Your task to perform on an android device: manage bookmarks in the chrome app Image 0: 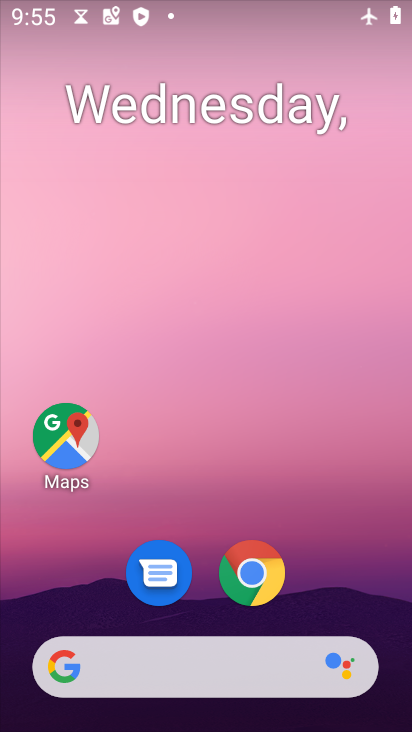
Step 0: click (252, 566)
Your task to perform on an android device: manage bookmarks in the chrome app Image 1: 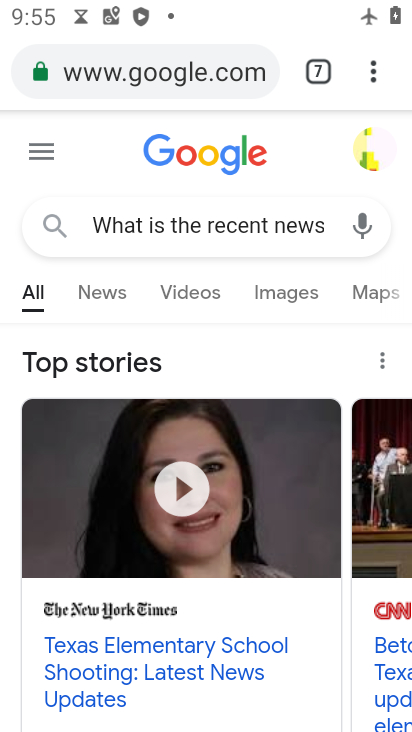
Step 1: click (373, 69)
Your task to perform on an android device: manage bookmarks in the chrome app Image 2: 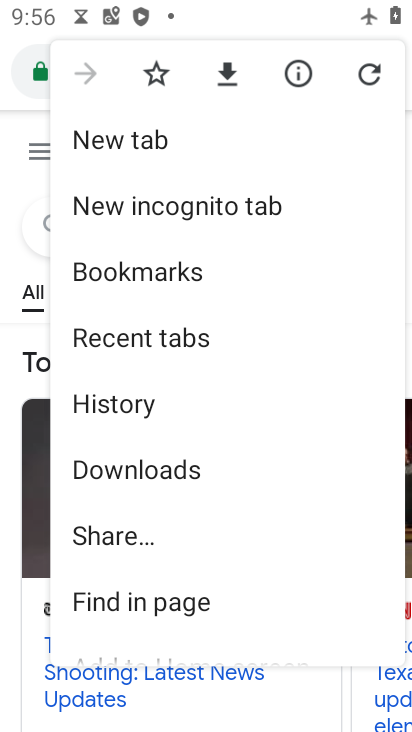
Step 2: click (141, 264)
Your task to perform on an android device: manage bookmarks in the chrome app Image 3: 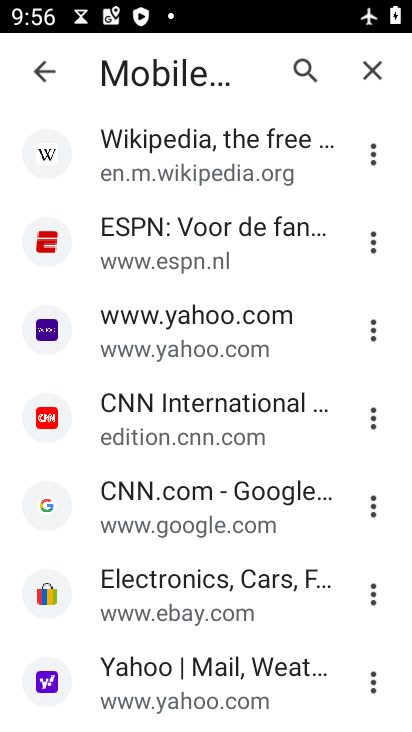
Step 3: click (166, 224)
Your task to perform on an android device: manage bookmarks in the chrome app Image 4: 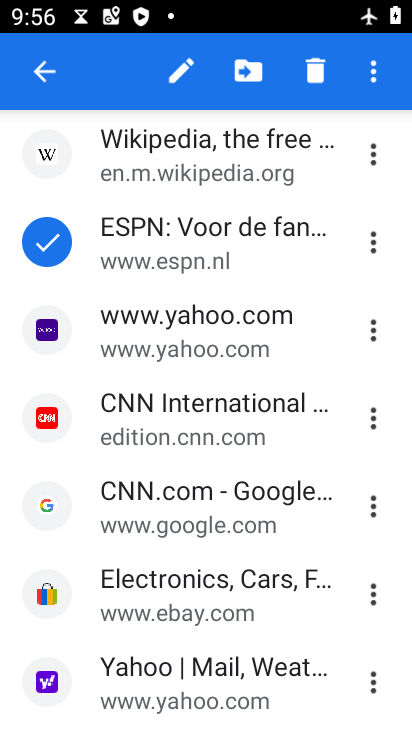
Step 4: click (253, 74)
Your task to perform on an android device: manage bookmarks in the chrome app Image 5: 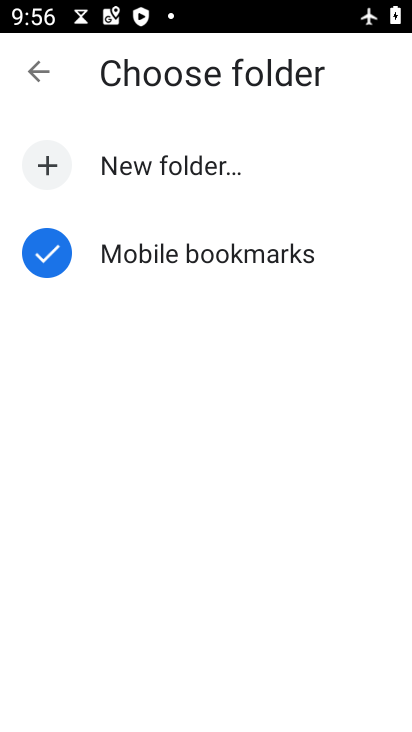
Step 5: click (173, 169)
Your task to perform on an android device: manage bookmarks in the chrome app Image 6: 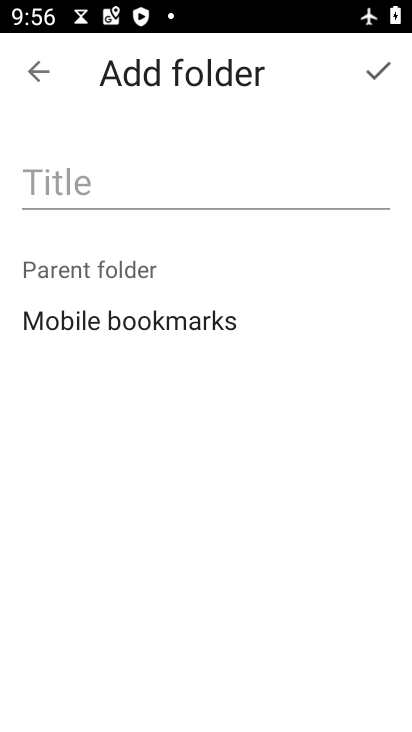
Step 6: click (183, 185)
Your task to perform on an android device: manage bookmarks in the chrome app Image 7: 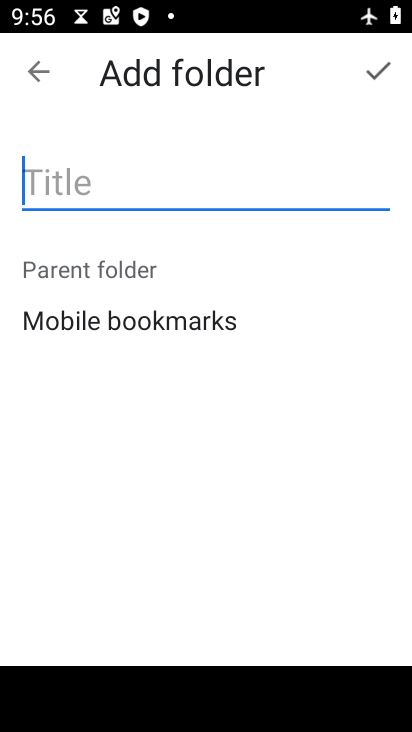
Step 7: type "ghjk"
Your task to perform on an android device: manage bookmarks in the chrome app Image 8: 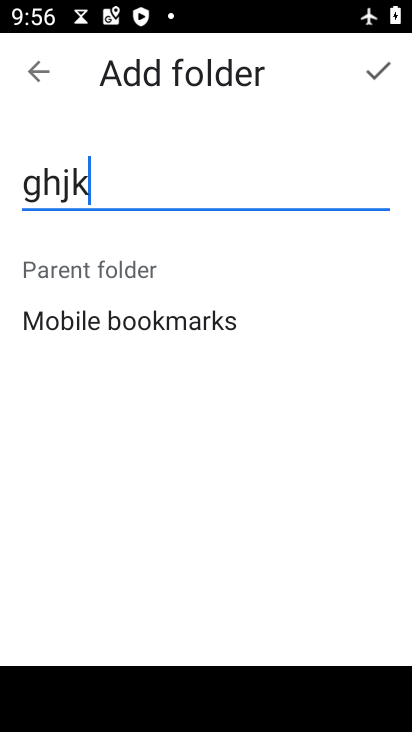
Step 8: click (373, 75)
Your task to perform on an android device: manage bookmarks in the chrome app Image 9: 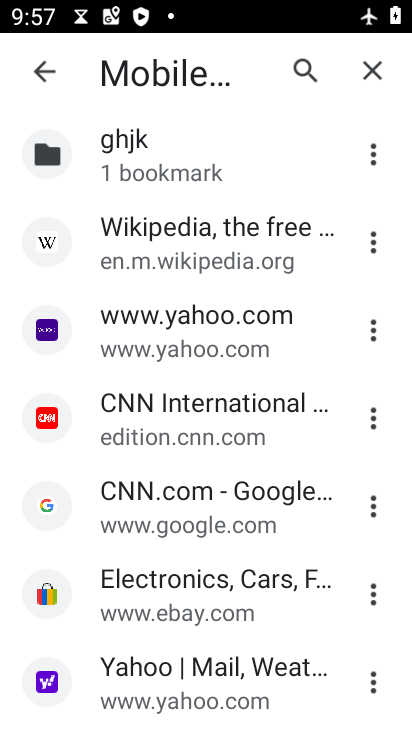
Step 9: task complete